Your task to perform on an android device: Clear the cart on bestbuy. Add usb-c to the cart on bestbuy Image 0: 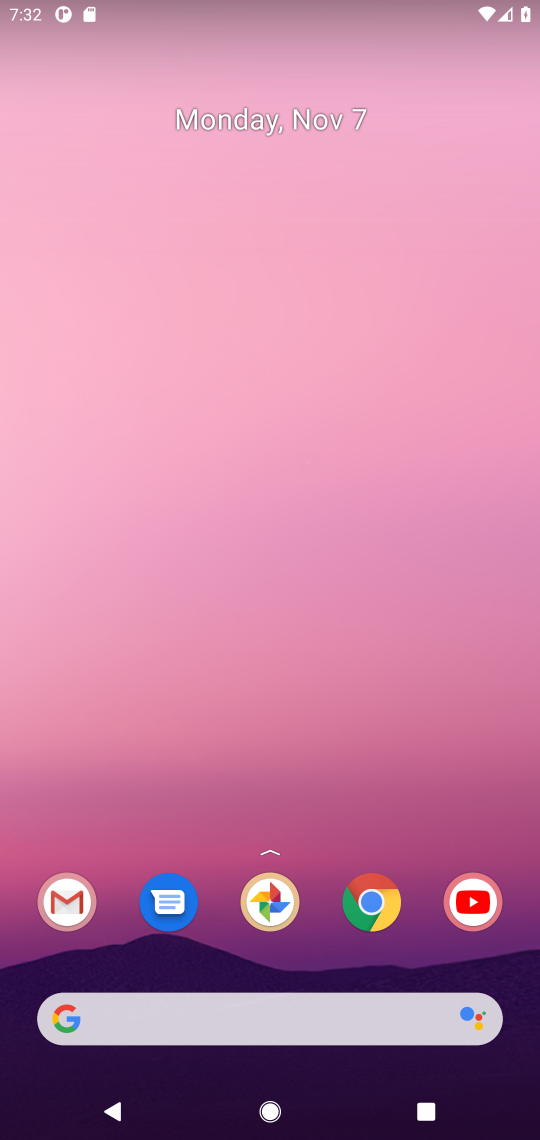
Step 0: click (368, 921)
Your task to perform on an android device: Clear the cart on bestbuy. Add usb-c to the cart on bestbuy Image 1: 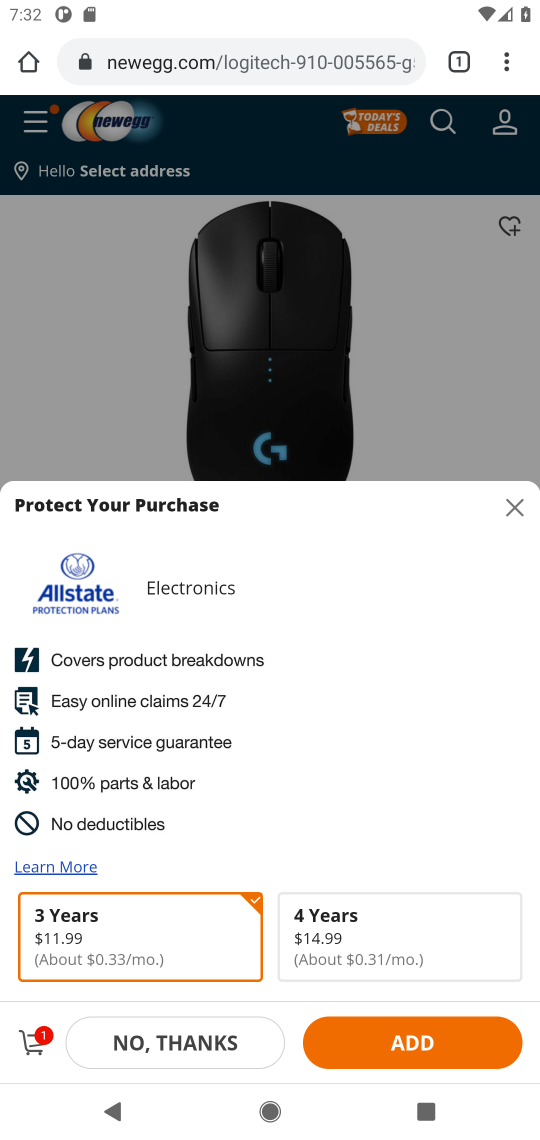
Step 1: click (223, 54)
Your task to perform on an android device: Clear the cart on bestbuy. Add usb-c to the cart on bestbuy Image 2: 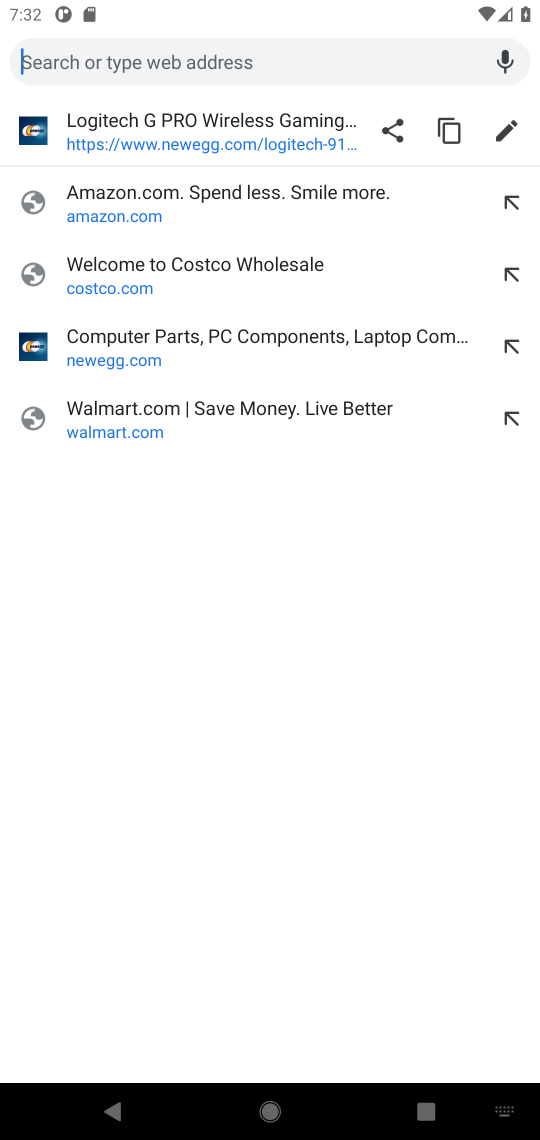
Step 2: type "bestbuy.com"
Your task to perform on an android device: Clear the cart on bestbuy. Add usb-c to the cart on bestbuy Image 3: 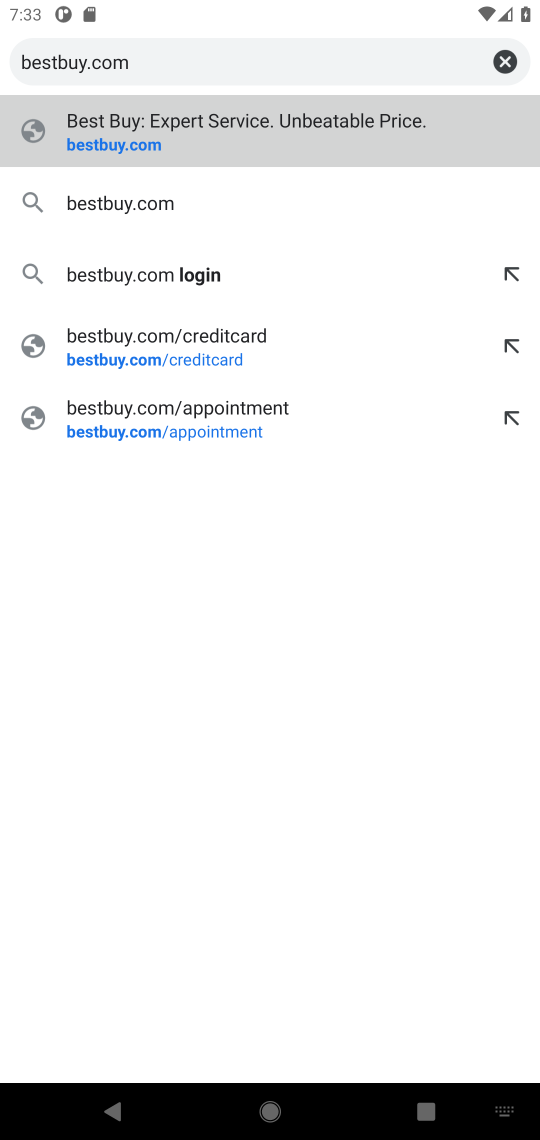
Step 3: click (91, 147)
Your task to perform on an android device: Clear the cart on bestbuy. Add usb-c to the cart on bestbuy Image 4: 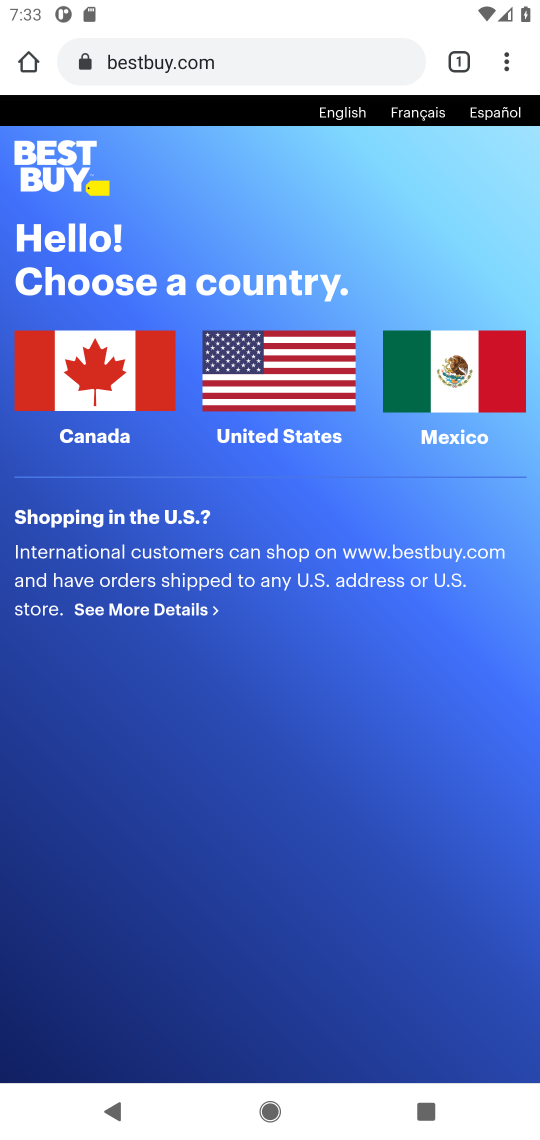
Step 4: click (263, 374)
Your task to perform on an android device: Clear the cart on bestbuy. Add usb-c to the cart on bestbuy Image 5: 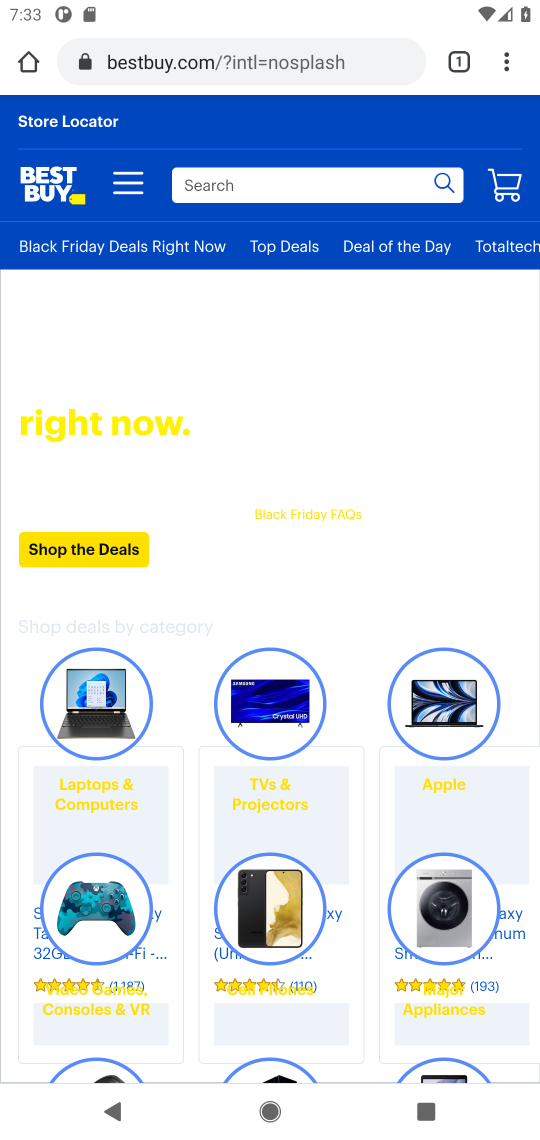
Step 5: click (514, 195)
Your task to perform on an android device: Clear the cart on bestbuy. Add usb-c to the cart on bestbuy Image 6: 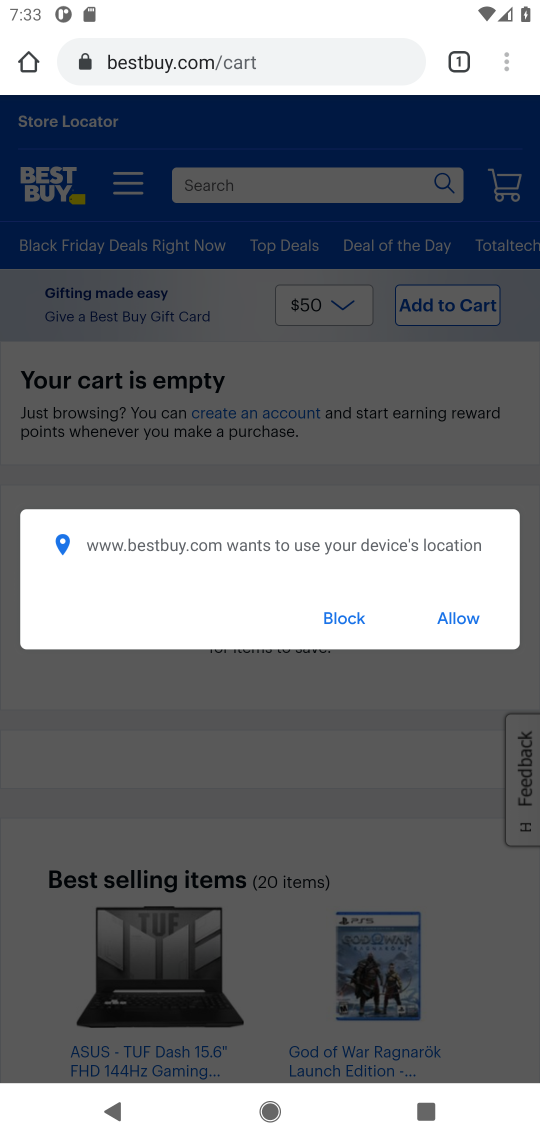
Step 6: click (312, 629)
Your task to perform on an android device: Clear the cart on bestbuy. Add usb-c to the cart on bestbuy Image 7: 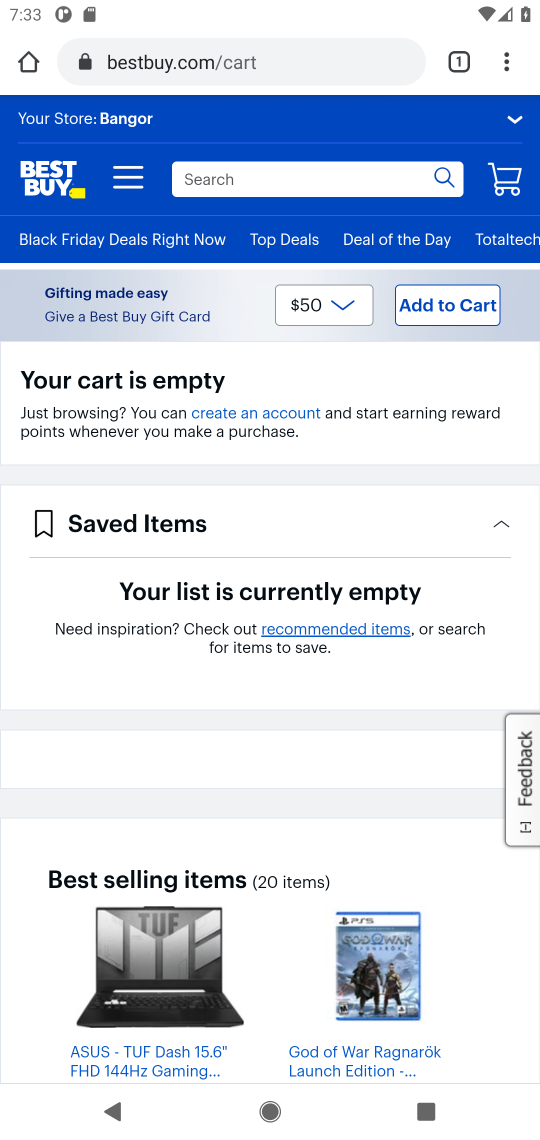
Step 7: click (375, 184)
Your task to perform on an android device: Clear the cart on bestbuy. Add usb-c to the cart on bestbuy Image 8: 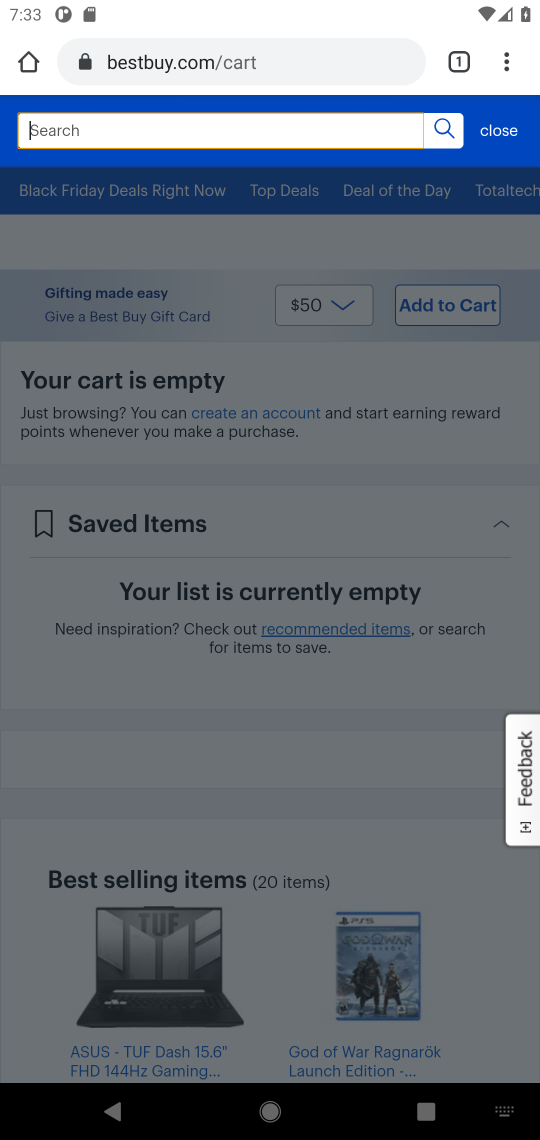
Step 8: type "usb-c"
Your task to perform on an android device: Clear the cart on bestbuy. Add usb-c to the cart on bestbuy Image 9: 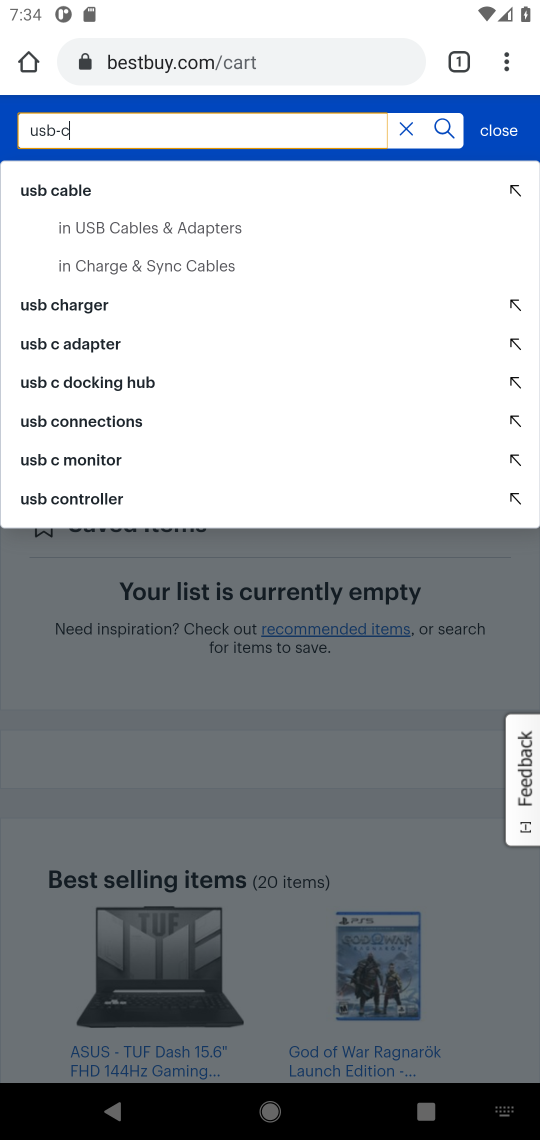
Step 9: click (450, 134)
Your task to perform on an android device: Clear the cart on bestbuy. Add usb-c to the cart on bestbuy Image 10: 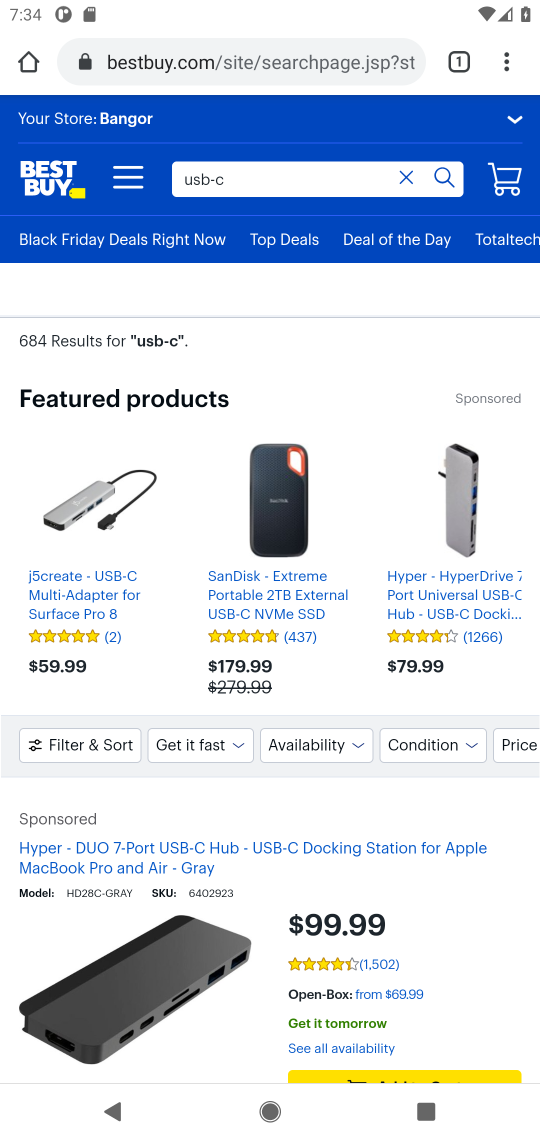
Step 10: drag from (188, 887) to (206, 451)
Your task to perform on an android device: Clear the cart on bestbuy. Add usb-c to the cart on bestbuy Image 11: 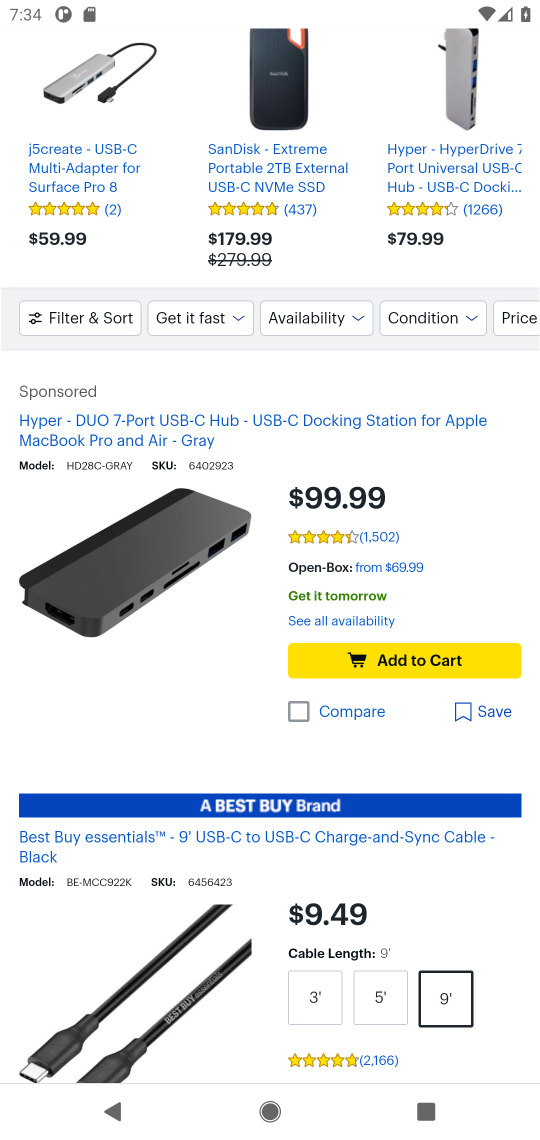
Step 11: click (401, 656)
Your task to perform on an android device: Clear the cart on bestbuy. Add usb-c to the cart on bestbuy Image 12: 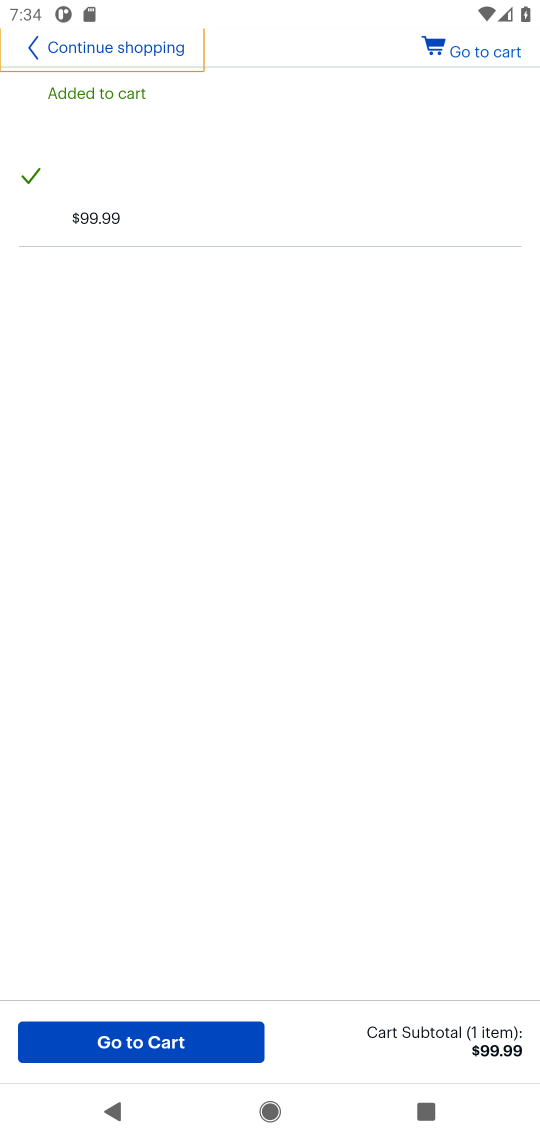
Step 12: task complete